Your task to perform on an android device: find photos in the google photos app Image 0: 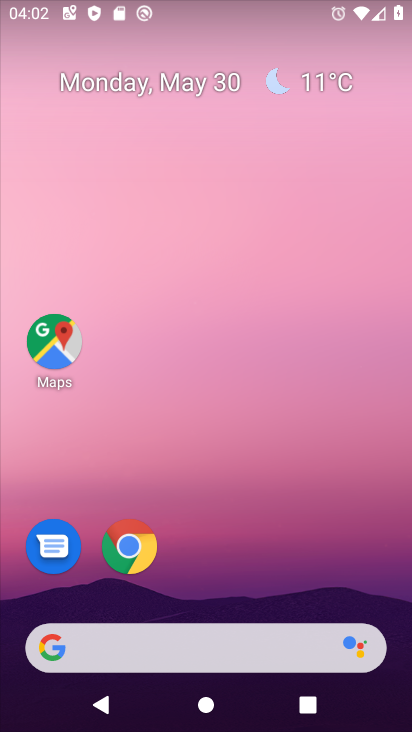
Step 0: press home button
Your task to perform on an android device: find photos in the google photos app Image 1: 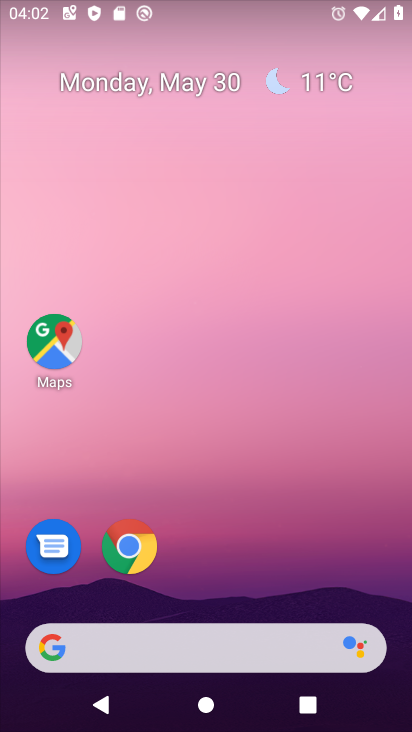
Step 1: drag from (218, 605) to (252, 6)
Your task to perform on an android device: find photos in the google photos app Image 2: 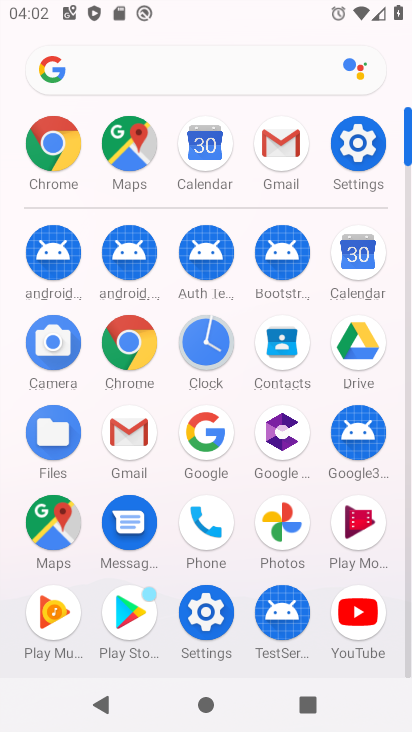
Step 2: click (274, 516)
Your task to perform on an android device: find photos in the google photos app Image 3: 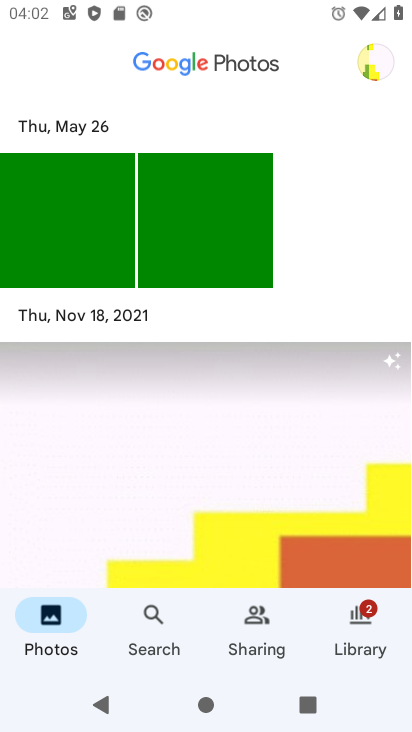
Step 3: task complete